Your task to perform on an android device: Open privacy settings Image 0: 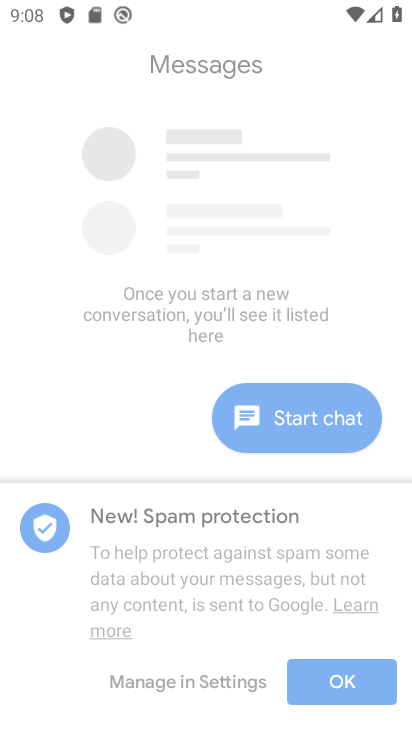
Step 0: drag from (342, 594) to (257, 7)
Your task to perform on an android device: Open privacy settings Image 1: 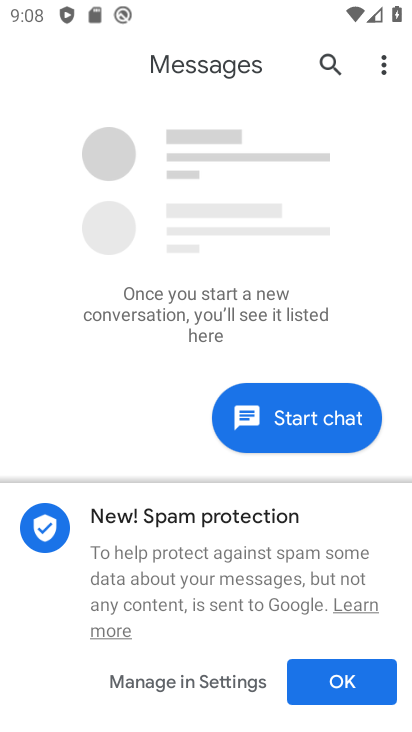
Step 1: press home button
Your task to perform on an android device: Open privacy settings Image 2: 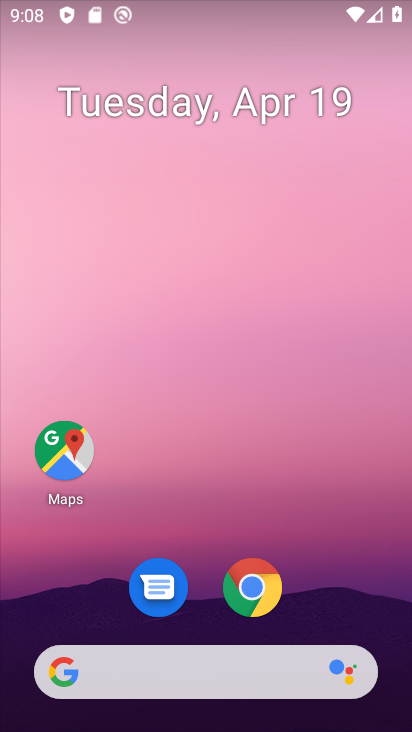
Step 2: drag from (339, 615) to (294, 157)
Your task to perform on an android device: Open privacy settings Image 3: 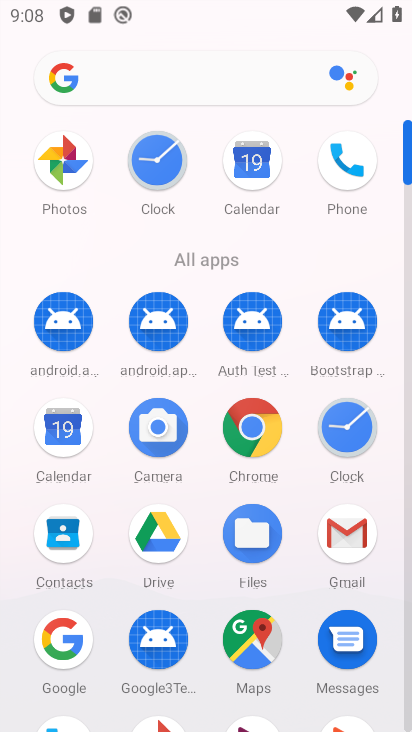
Step 3: drag from (294, 607) to (307, 208)
Your task to perform on an android device: Open privacy settings Image 4: 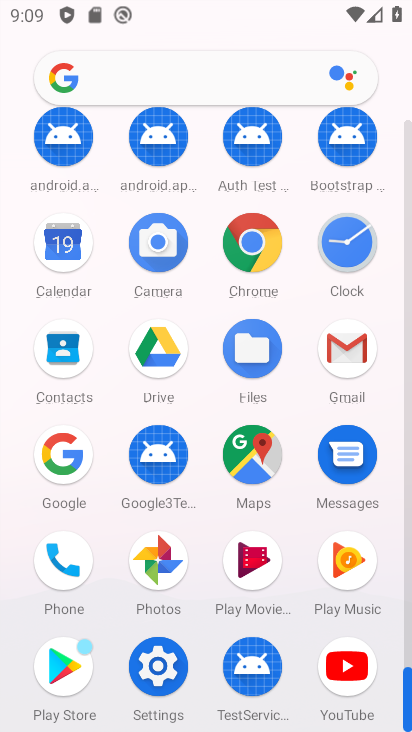
Step 4: click (151, 667)
Your task to perform on an android device: Open privacy settings Image 5: 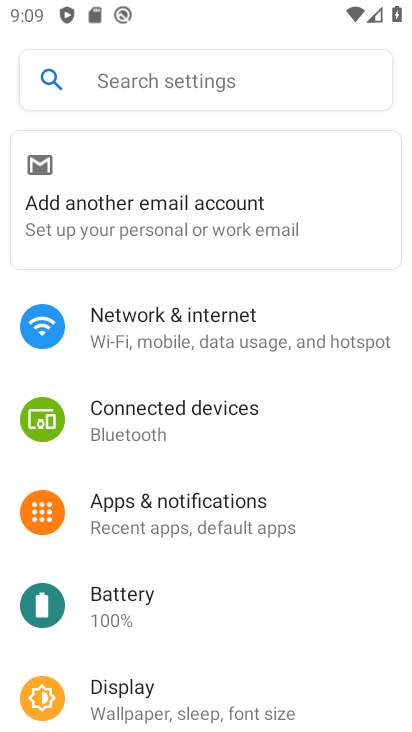
Step 5: drag from (248, 618) to (270, 177)
Your task to perform on an android device: Open privacy settings Image 6: 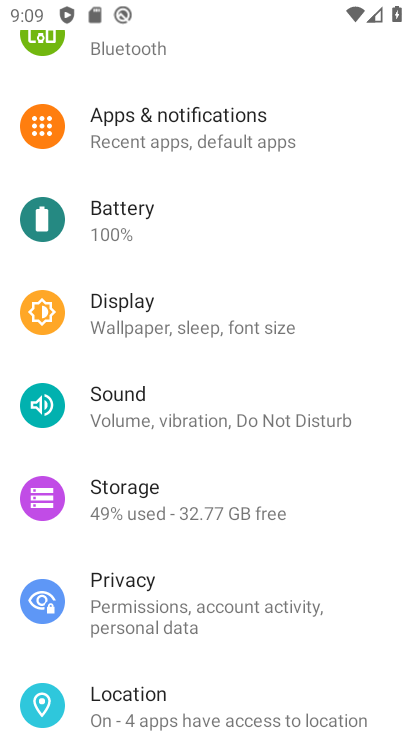
Step 6: click (140, 607)
Your task to perform on an android device: Open privacy settings Image 7: 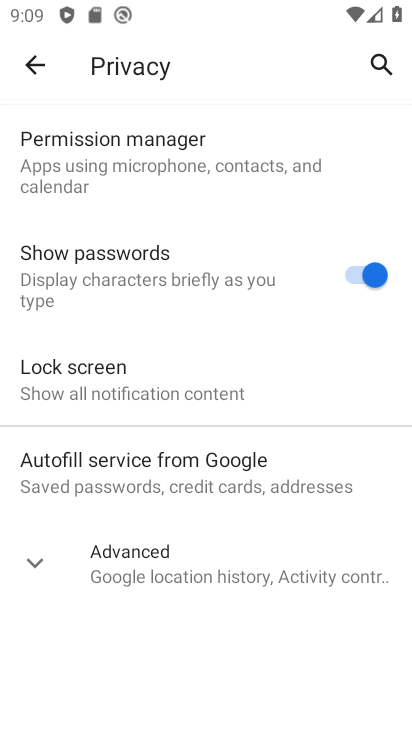
Step 7: task complete